Your task to perform on an android device: turn on translation in the chrome app Image 0: 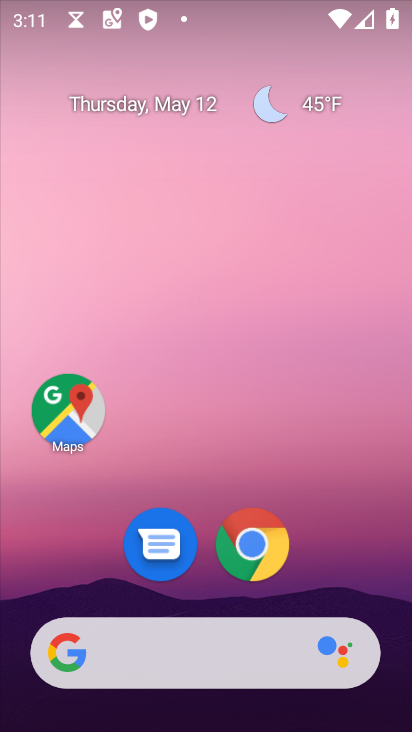
Step 0: click (270, 540)
Your task to perform on an android device: turn on translation in the chrome app Image 1: 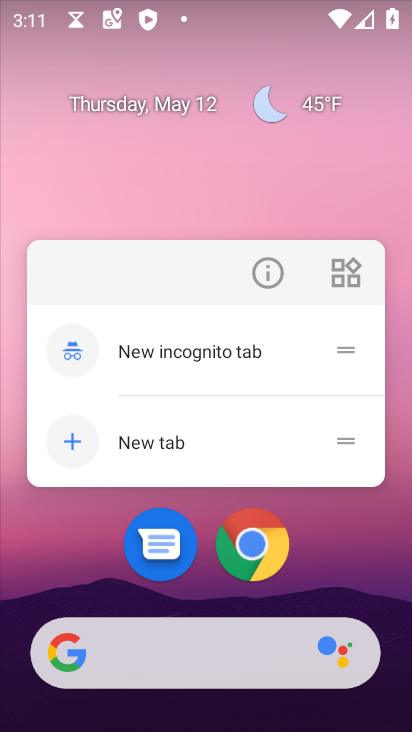
Step 1: click (270, 540)
Your task to perform on an android device: turn on translation in the chrome app Image 2: 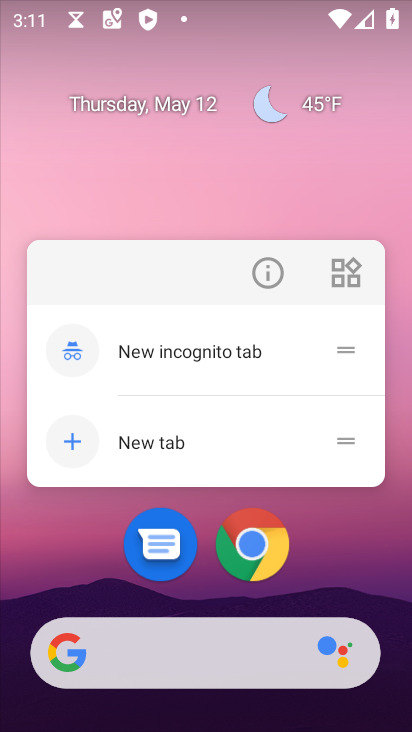
Step 2: click (251, 556)
Your task to perform on an android device: turn on translation in the chrome app Image 3: 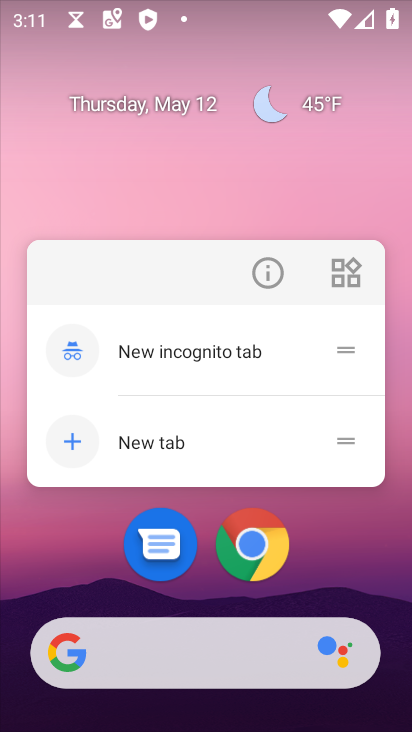
Step 3: click (249, 551)
Your task to perform on an android device: turn on translation in the chrome app Image 4: 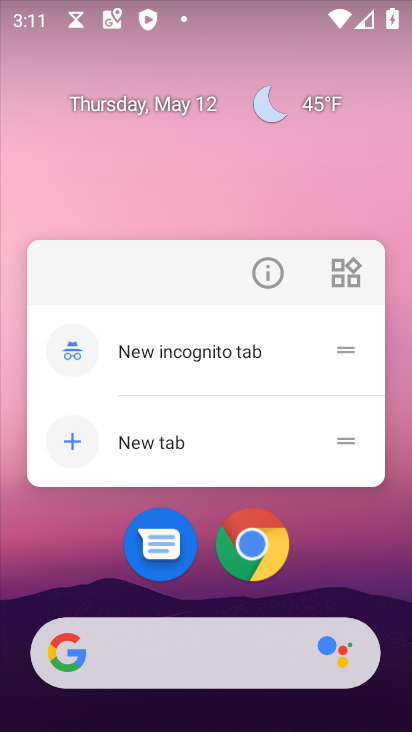
Step 4: click (249, 551)
Your task to perform on an android device: turn on translation in the chrome app Image 5: 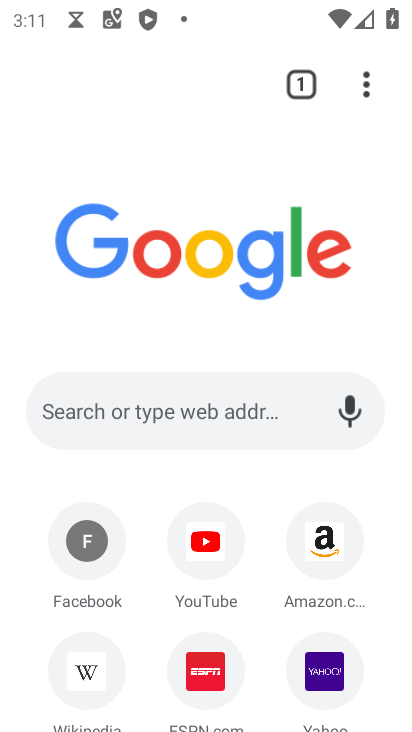
Step 5: click (357, 93)
Your task to perform on an android device: turn on translation in the chrome app Image 6: 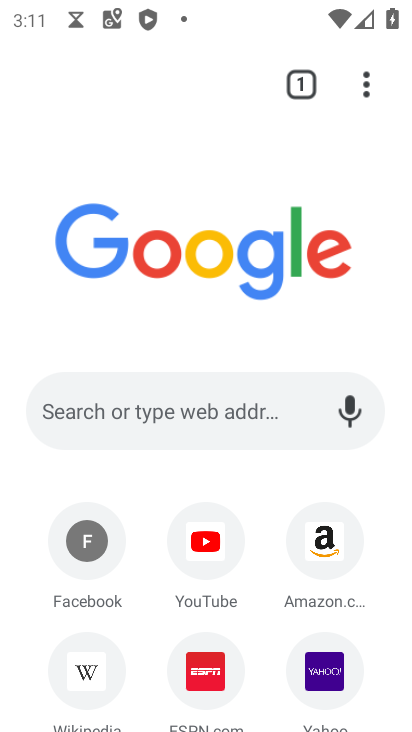
Step 6: click (372, 79)
Your task to perform on an android device: turn on translation in the chrome app Image 7: 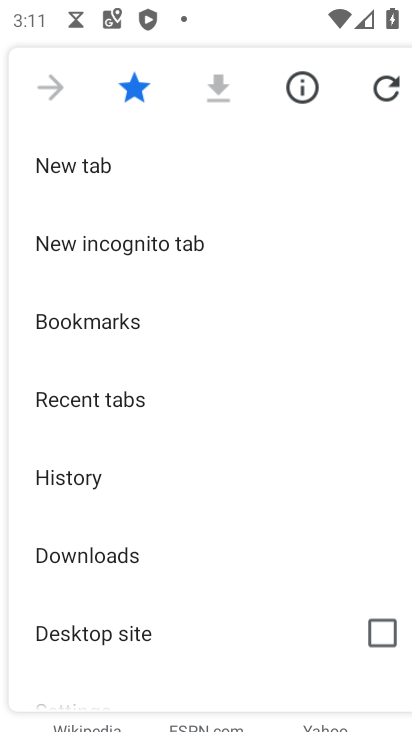
Step 7: drag from (240, 593) to (202, 277)
Your task to perform on an android device: turn on translation in the chrome app Image 8: 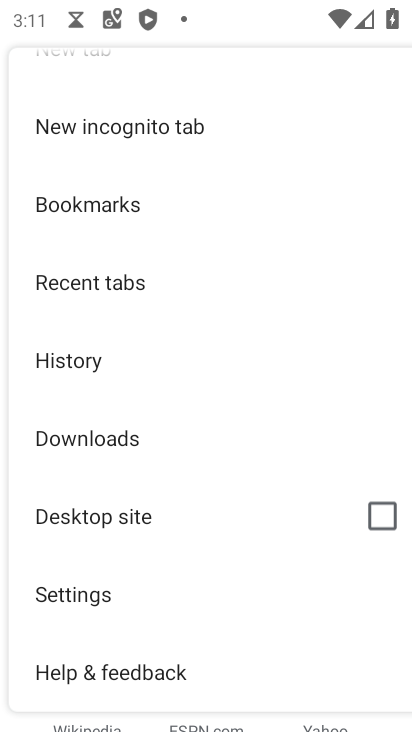
Step 8: click (163, 582)
Your task to perform on an android device: turn on translation in the chrome app Image 9: 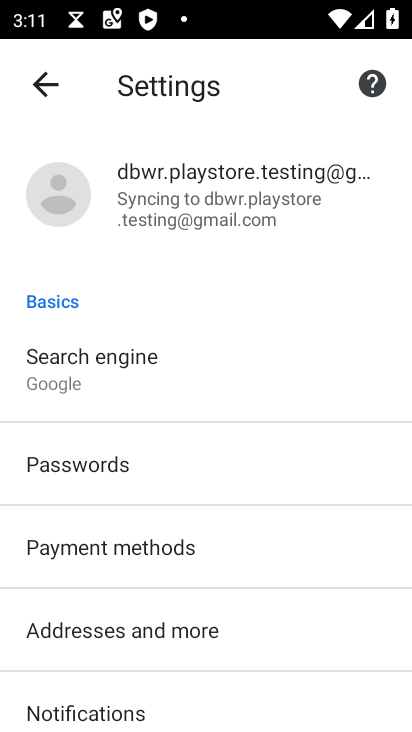
Step 9: drag from (166, 596) to (164, 277)
Your task to perform on an android device: turn on translation in the chrome app Image 10: 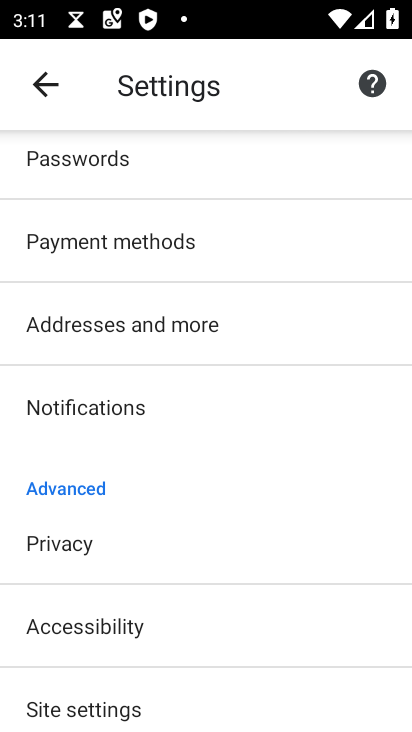
Step 10: drag from (175, 586) to (177, 325)
Your task to perform on an android device: turn on translation in the chrome app Image 11: 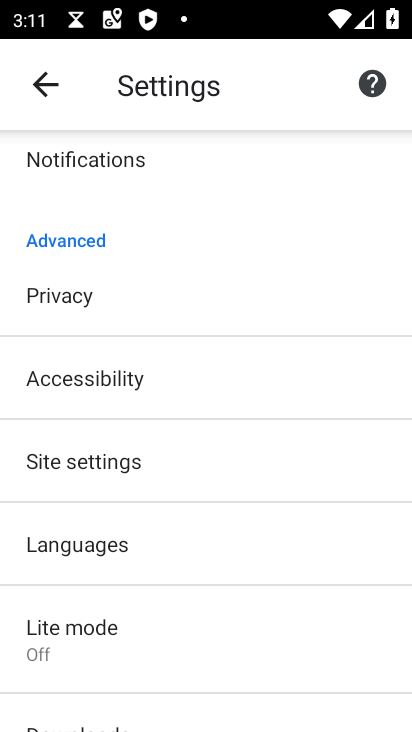
Step 11: click (157, 555)
Your task to perform on an android device: turn on translation in the chrome app Image 12: 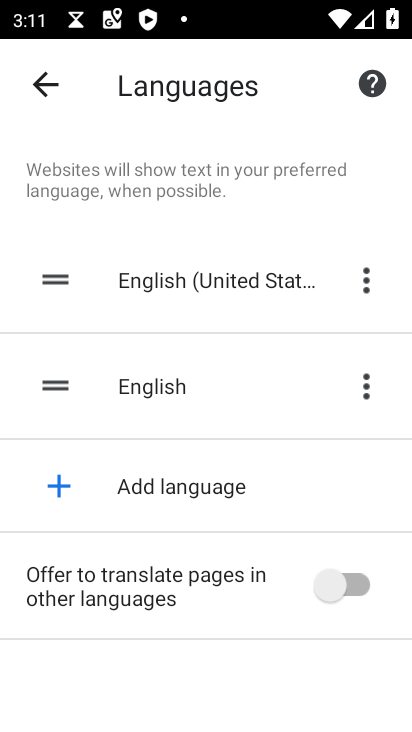
Step 12: click (304, 593)
Your task to perform on an android device: turn on translation in the chrome app Image 13: 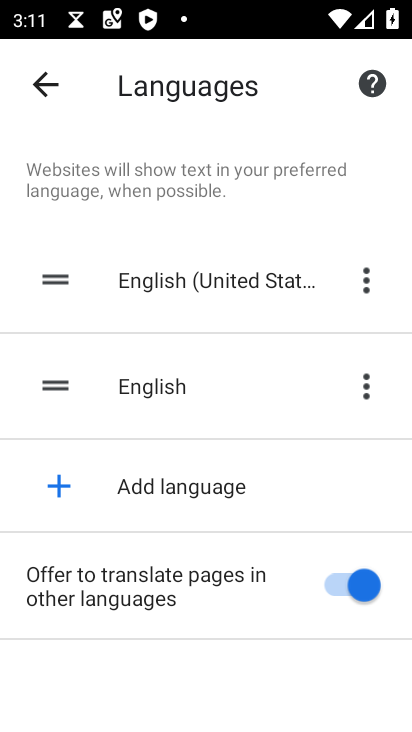
Step 13: task complete